Your task to perform on an android device: toggle wifi Image 0: 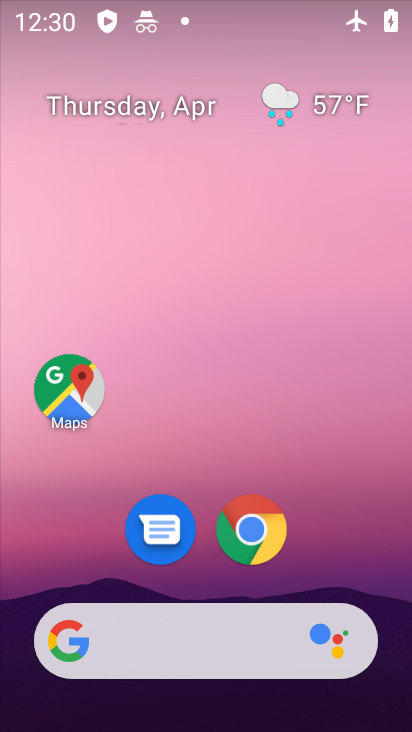
Step 0: drag from (161, 647) to (122, 30)
Your task to perform on an android device: toggle wifi Image 1: 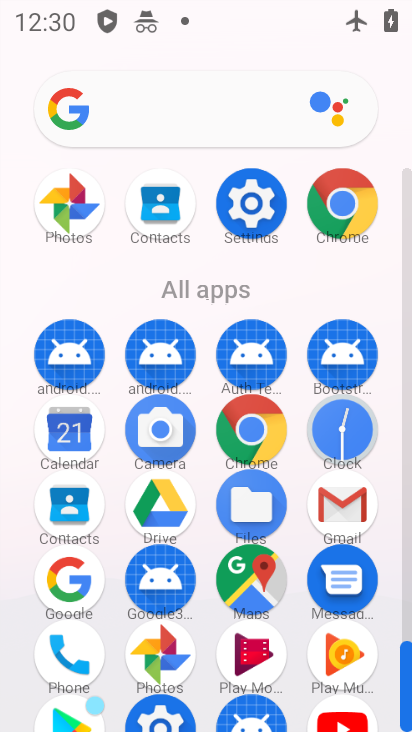
Step 1: click (239, 226)
Your task to perform on an android device: toggle wifi Image 2: 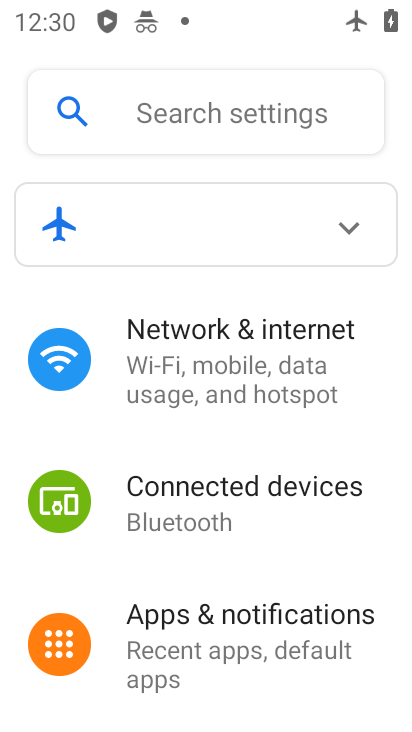
Step 2: click (214, 348)
Your task to perform on an android device: toggle wifi Image 3: 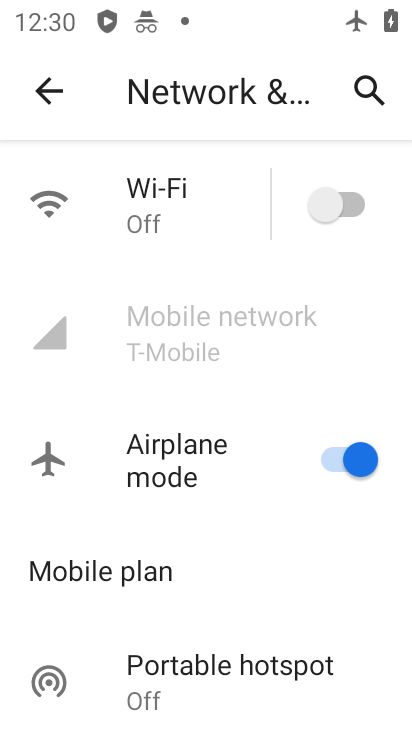
Step 3: click (340, 207)
Your task to perform on an android device: toggle wifi Image 4: 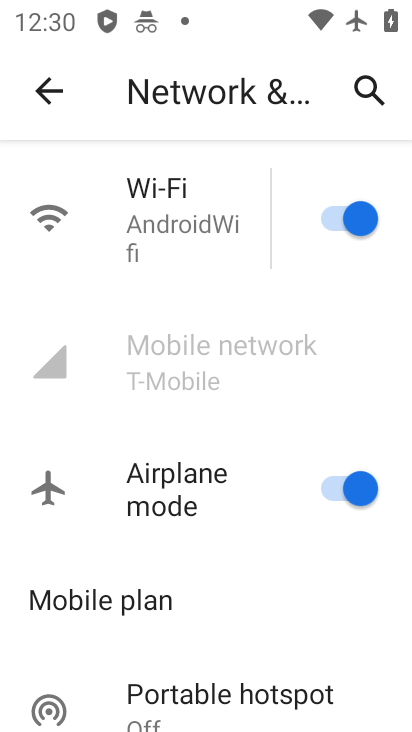
Step 4: task complete